Your task to perform on an android device: Go to Yahoo.com Image 0: 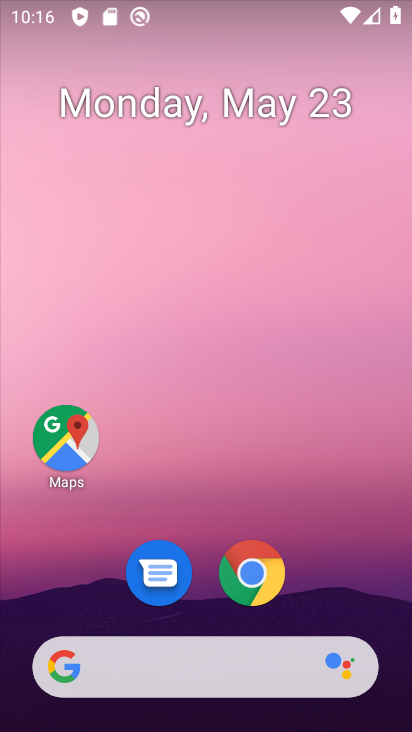
Step 0: drag from (348, 538) to (169, 9)
Your task to perform on an android device: Go to Yahoo.com Image 1: 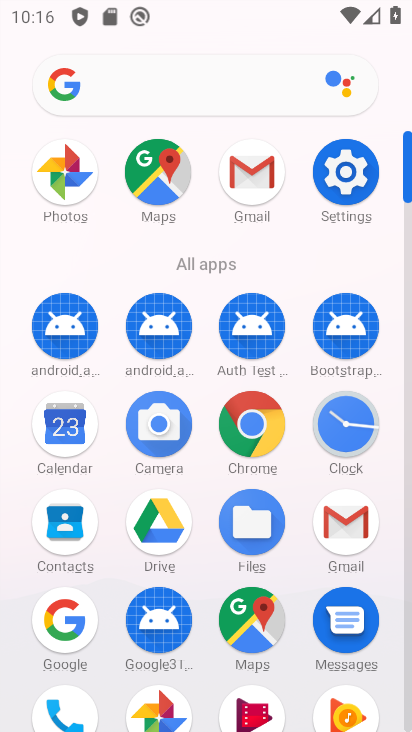
Step 1: drag from (18, 537) to (3, 225)
Your task to perform on an android device: Go to Yahoo.com Image 2: 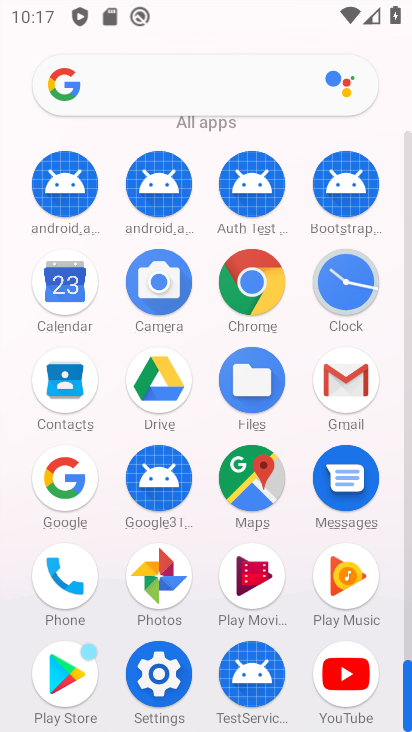
Step 2: drag from (13, 504) to (12, 272)
Your task to perform on an android device: Go to Yahoo.com Image 3: 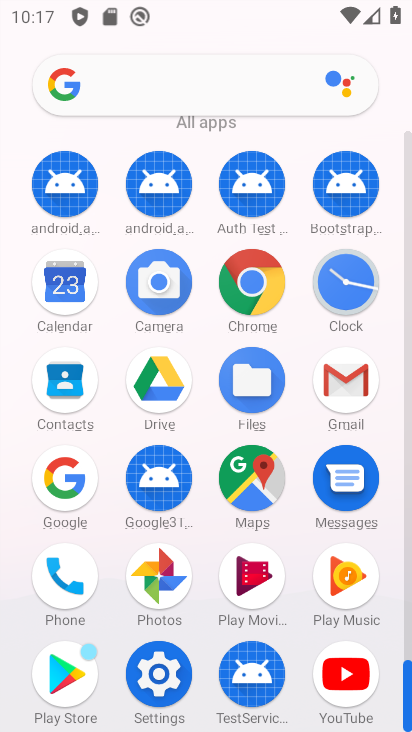
Step 3: click (249, 282)
Your task to perform on an android device: Go to Yahoo.com Image 4: 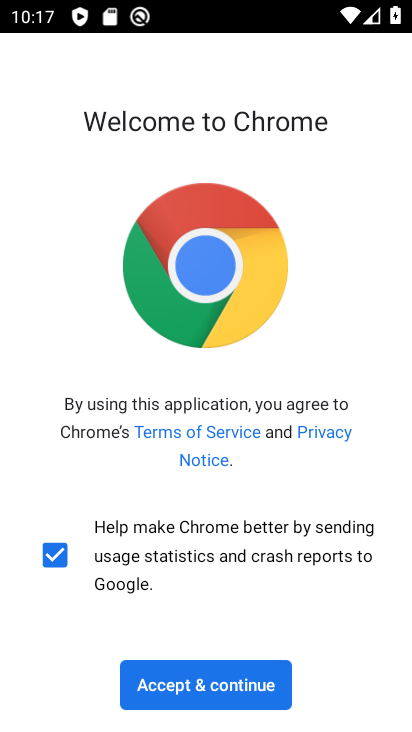
Step 4: click (190, 677)
Your task to perform on an android device: Go to Yahoo.com Image 5: 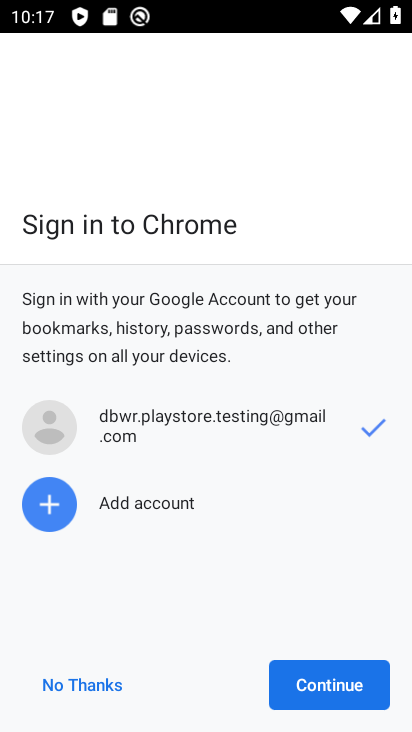
Step 5: click (299, 689)
Your task to perform on an android device: Go to Yahoo.com Image 6: 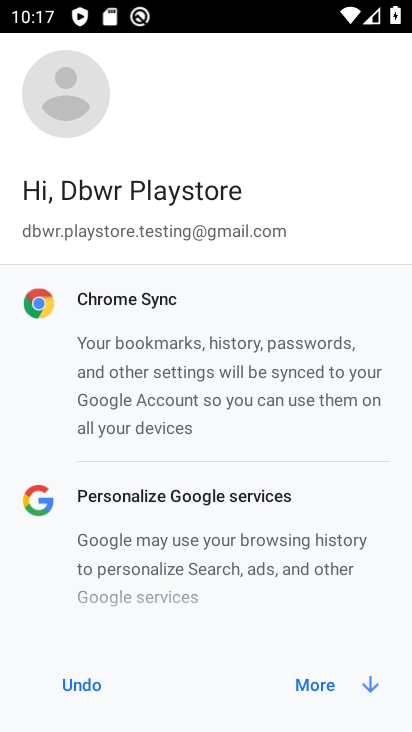
Step 6: click (324, 686)
Your task to perform on an android device: Go to Yahoo.com Image 7: 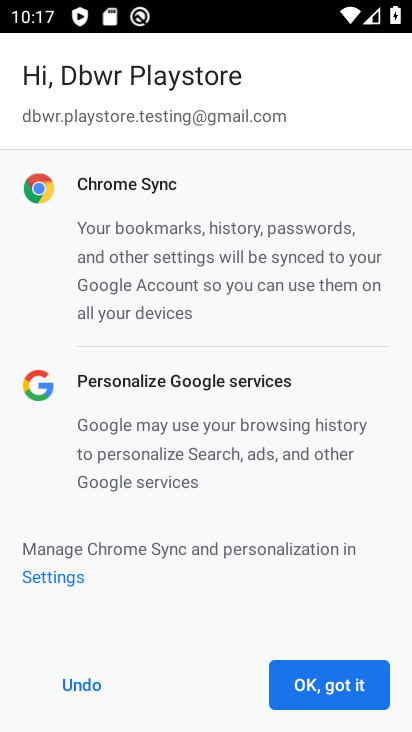
Step 7: click (324, 686)
Your task to perform on an android device: Go to Yahoo.com Image 8: 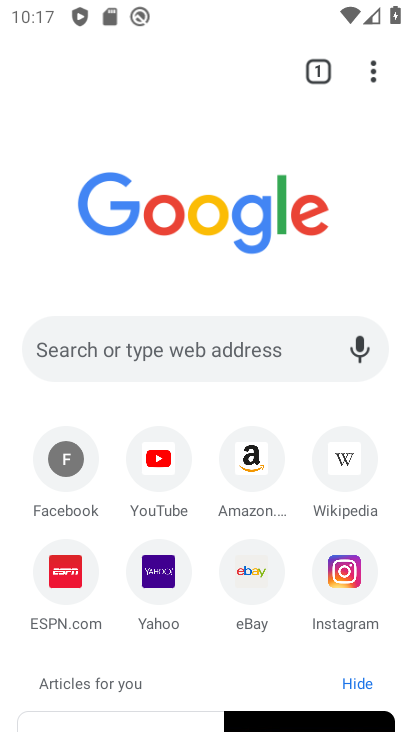
Step 8: click (162, 559)
Your task to perform on an android device: Go to Yahoo.com Image 9: 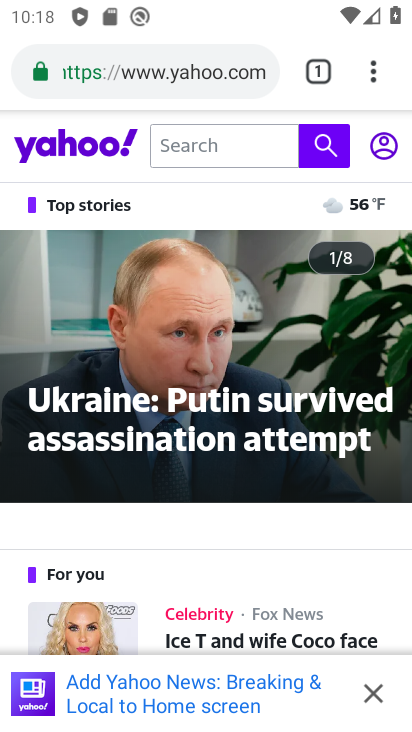
Step 9: task complete